Your task to perform on an android device: toggle translation in the chrome app Image 0: 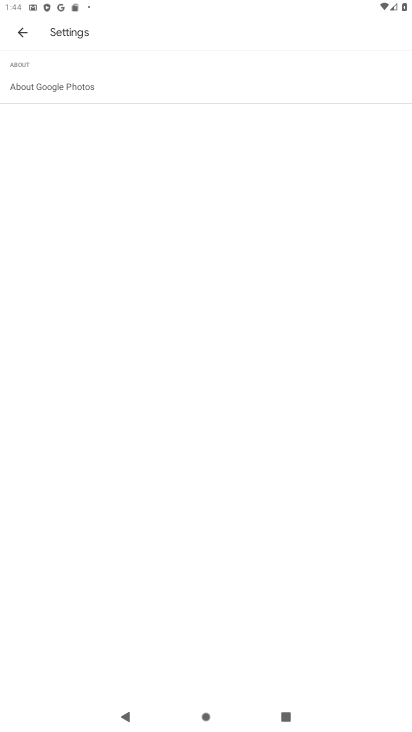
Step 0: press home button
Your task to perform on an android device: toggle translation in the chrome app Image 1: 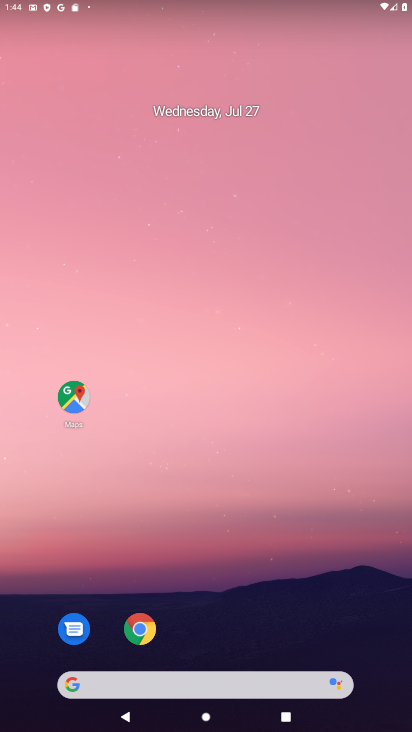
Step 1: click (124, 638)
Your task to perform on an android device: toggle translation in the chrome app Image 2: 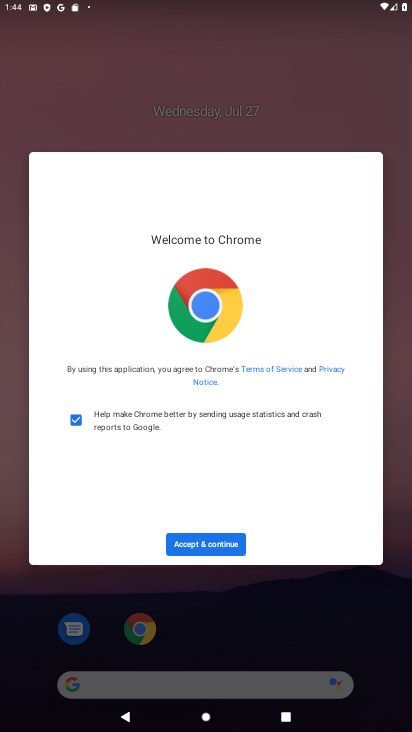
Step 2: click (220, 537)
Your task to perform on an android device: toggle translation in the chrome app Image 3: 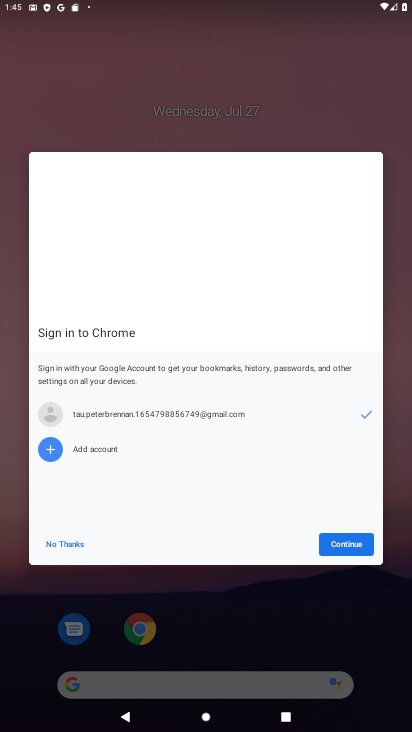
Step 3: click (317, 541)
Your task to perform on an android device: toggle translation in the chrome app Image 4: 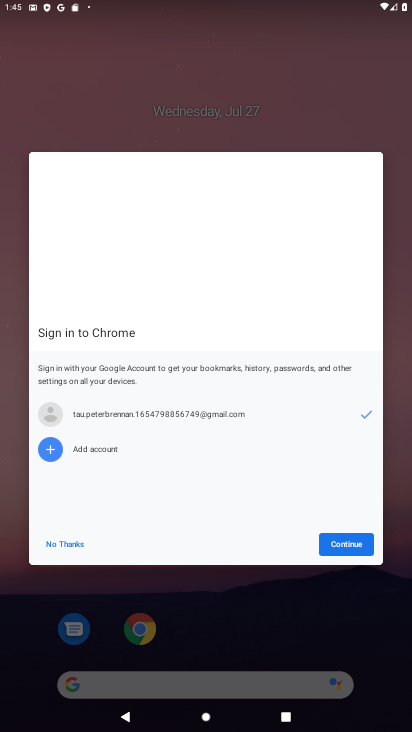
Step 4: click (317, 541)
Your task to perform on an android device: toggle translation in the chrome app Image 5: 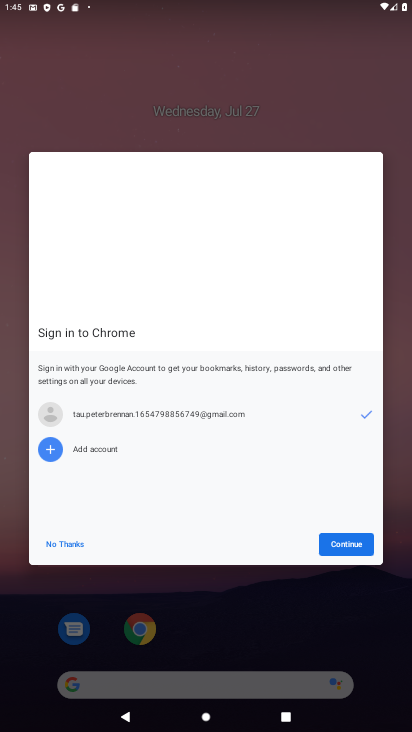
Step 5: click (352, 555)
Your task to perform on an android device: toggle translation in the chrome app Image 6: 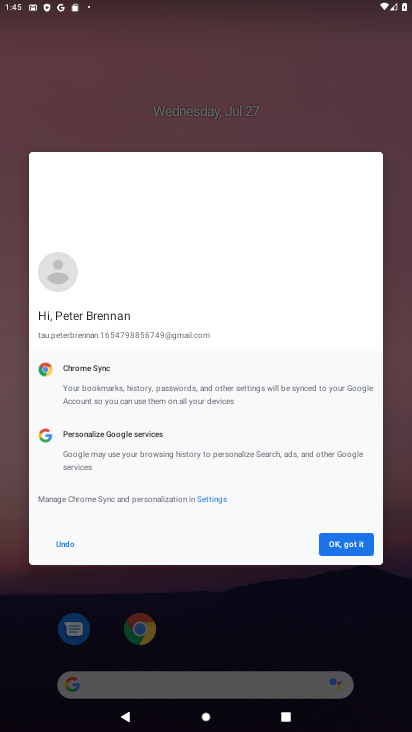
Step 6: click (352, 555)
Your task to perform on an android device: toggle translation in the chrome app Image 7: 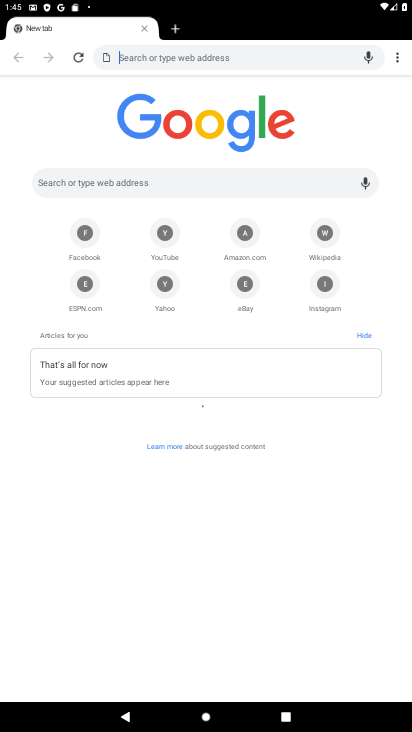
Step 7: click (401, 56)
Your task to perform on an android device: toggle translation in the chrome app Image 8: 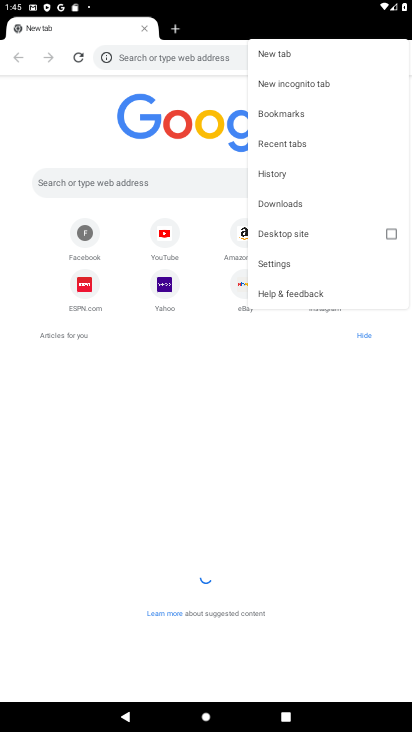
Step 8: click (288, 268)
Your task to perform on an android device: toggle translation in the chrome app Image 9: 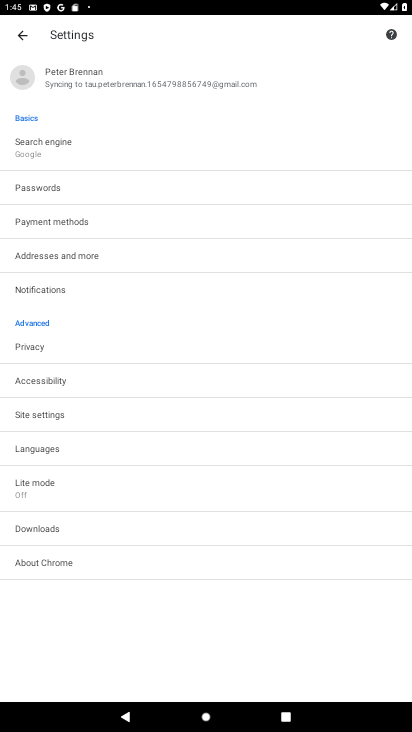
Step 9: task complete